Your task to perform on an android device: Open the map Image 0: 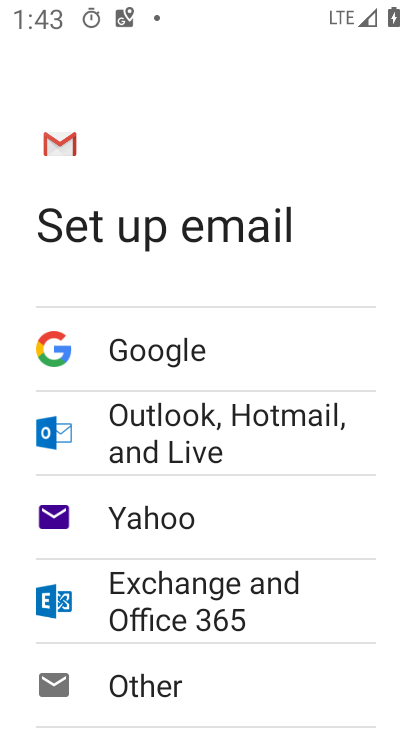
Step 0: press home button
Your task to perform on an android device: Open the map Image 1: 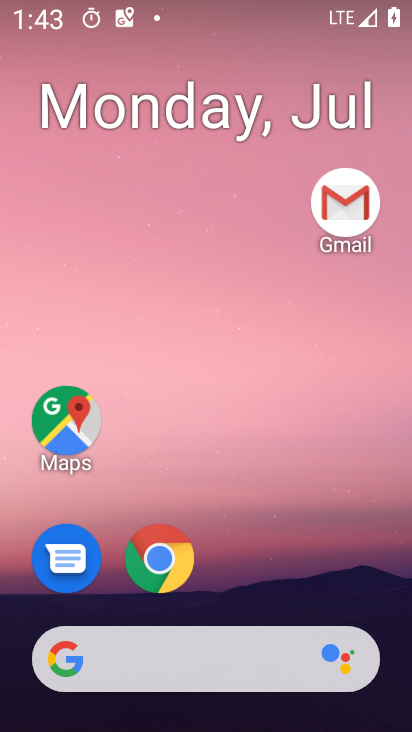
Step 1: drag from (358, 565) to (359, 132)
Your task to perform on an android device: Open the map Image 2: 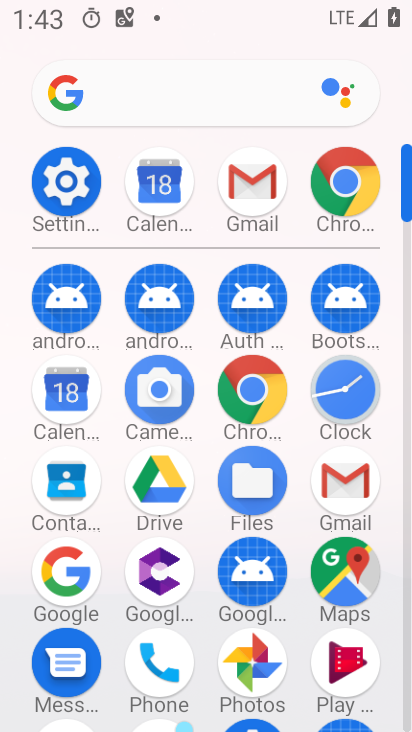
Step 2: click (348, 558)
Your task to perform on an android device: Open the map Image 3: 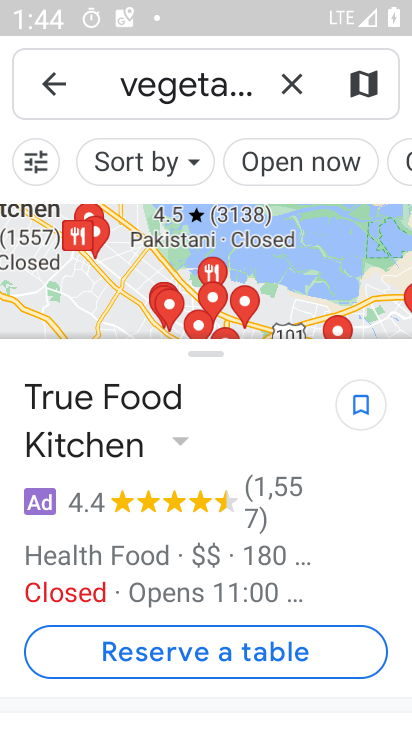
Step 3: task complete